Your task to perform on an android device: toggle pop-ups in chrome Image 0: 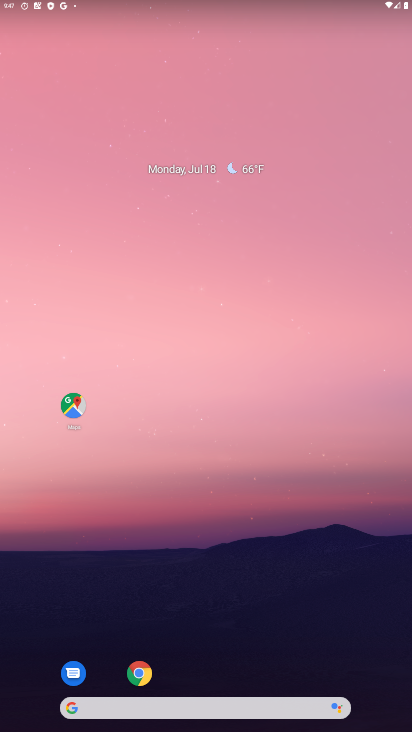
Step 0: click (139, 677)
Your task to perform on an android device: toggle pop-ups in chrome Image 1: 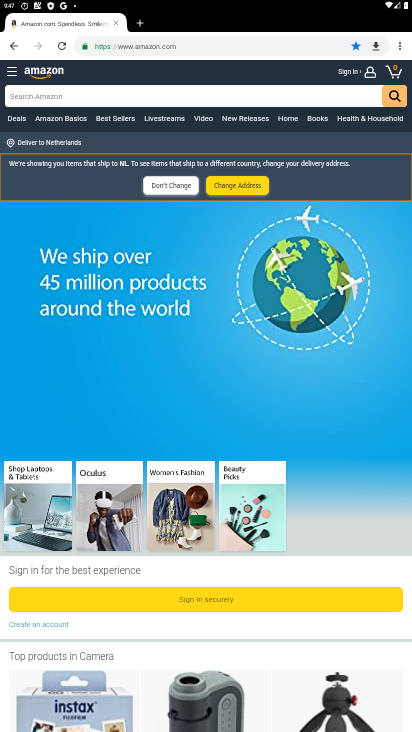
Step 1: click (396, 45)
Your task to perform on an android device: toggle pop-ups in chrome Image 2: 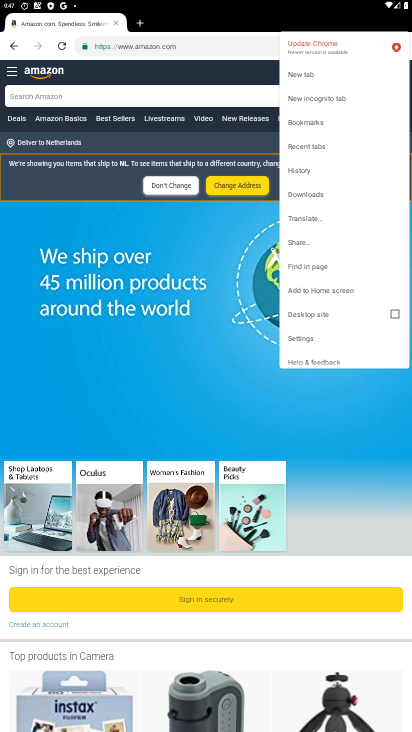
Step 2: click (311, 339)
Your task to perform on an android device: toggle pop-ups in chrome Image 3: 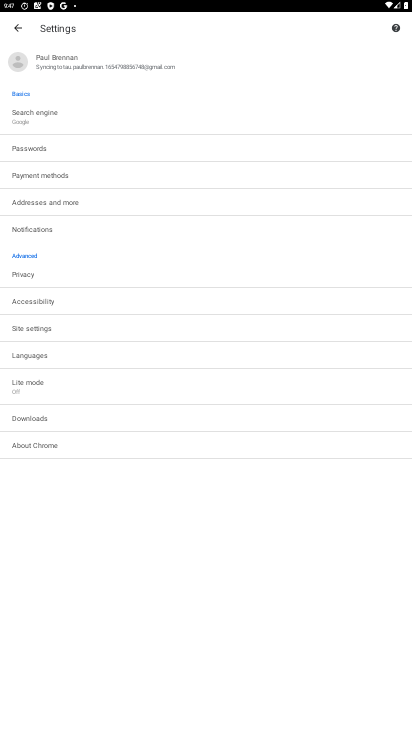
Step 3: click (41, 328)
Your task to perform on an android device: toggle pop-ups in chrome Image 4: 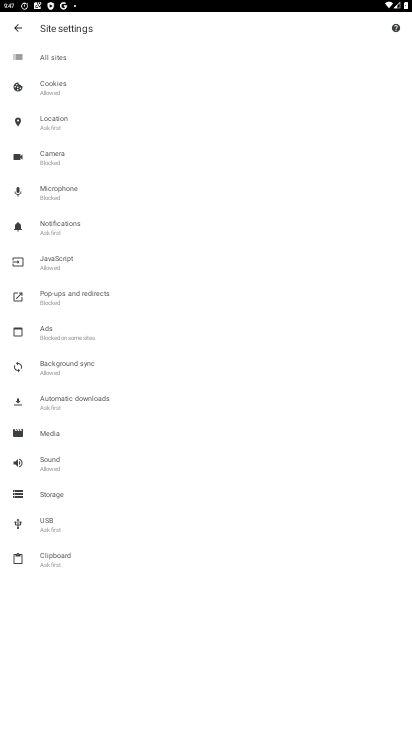
Step 4: click (87, 299)
Your task to perform on an android device: toggle pop-ups in chrome Image 5: 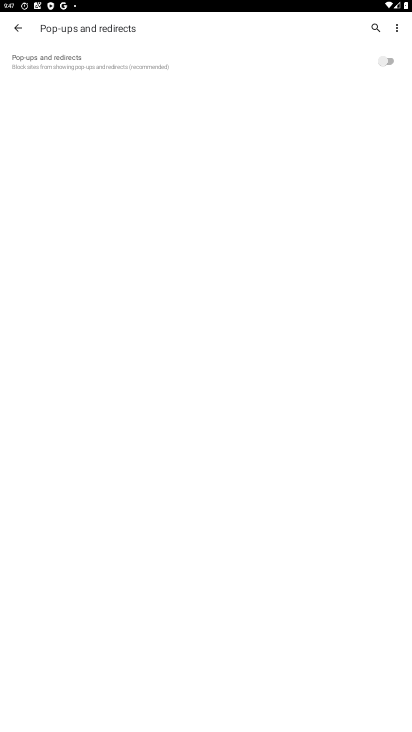
Step 5: click (383, 61)
Your task to perform on an android device: toggle pop-ups in chrome Image 6: 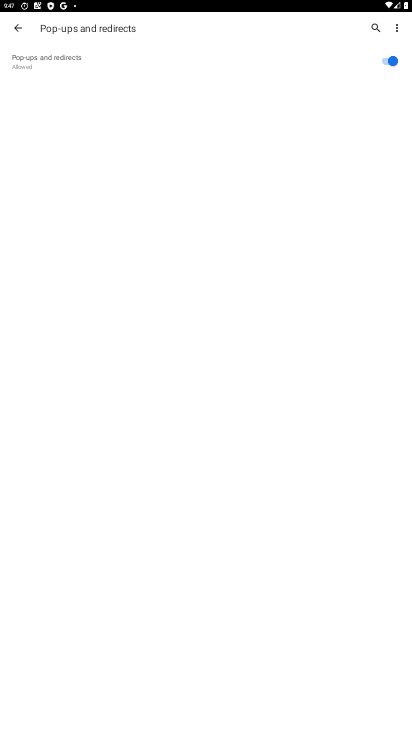
Step 6: task complete